Your task to perform on an android device: Is it going to rain tomorrow? Image 0: 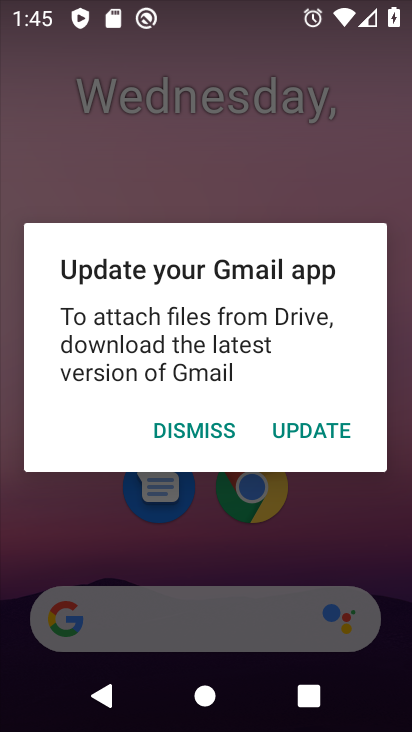
Step 0: press home button
Your task to perform on an android device: Is it going to rain tomorrow? Image 1: 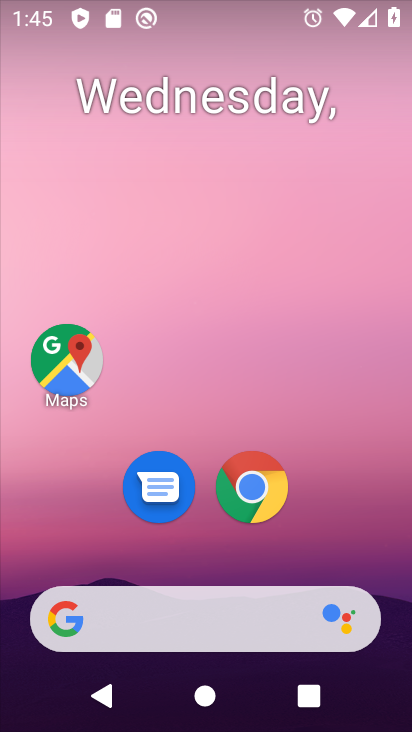
Step 1: task complete